Your task to perform on an android device: Open Wikipedia Image 0: 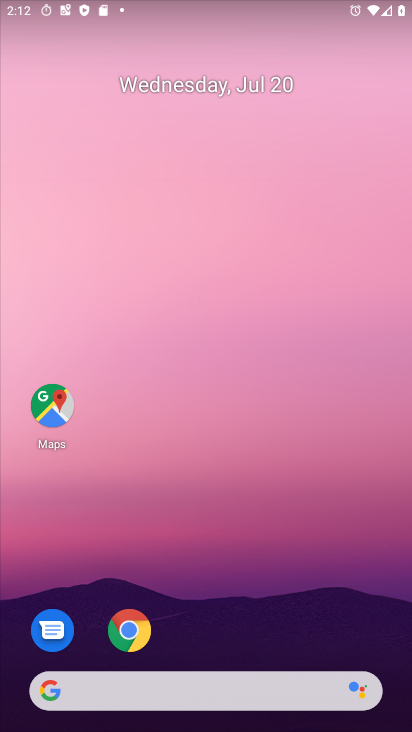
Step 0: click (133, 629)
Your task to perform on an android device: Open Wikipedia Image 1: 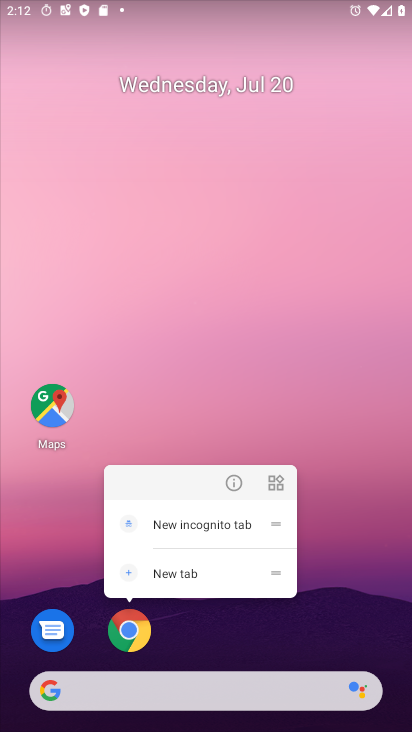
Step 1: click (133, 629)
Your task to perform on an android device: Open Wikipedia Image 2: 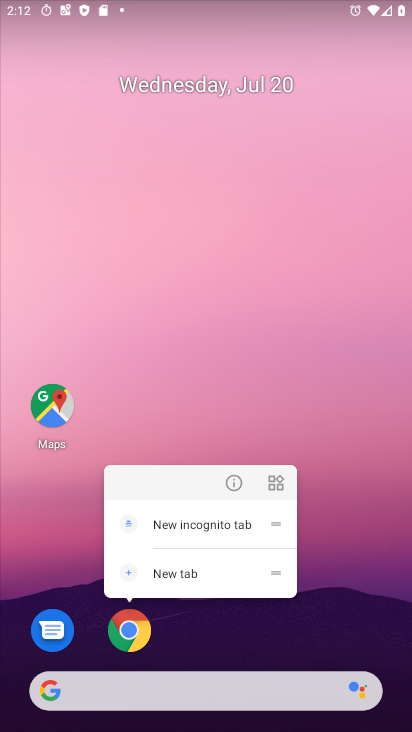
Step 2: click (125, 634)
Your task to perform on an android device: Open Wikipedia Image 3: 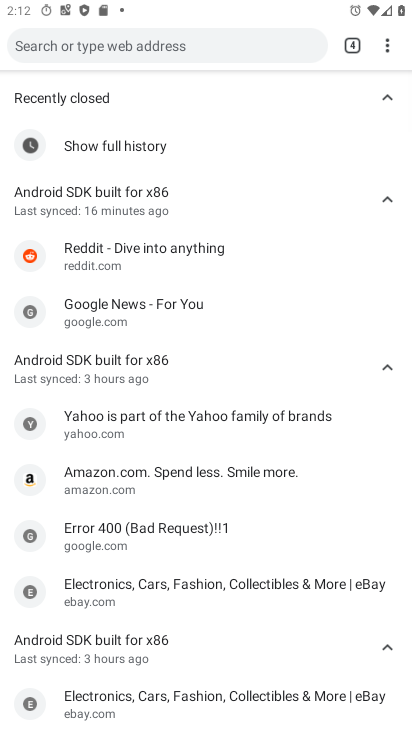
Step 3: drag from (381, 44) to (303, 85)
Your task to perform on an android device: Open Wikipedia Image 4: 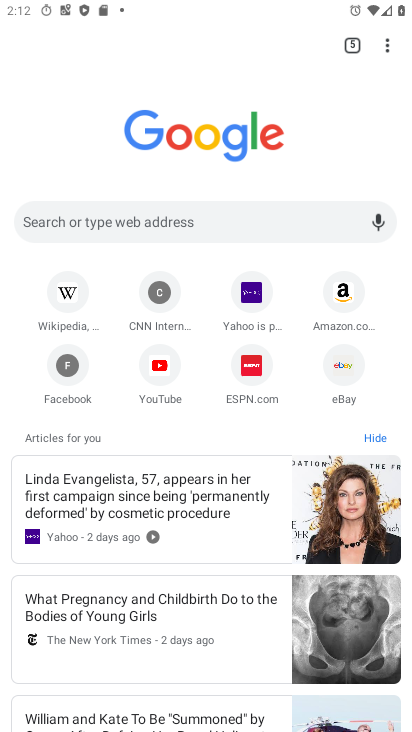
Step 4: click (63, 295)
Your task to perform on an android device: Open Wikipedia Image 5: 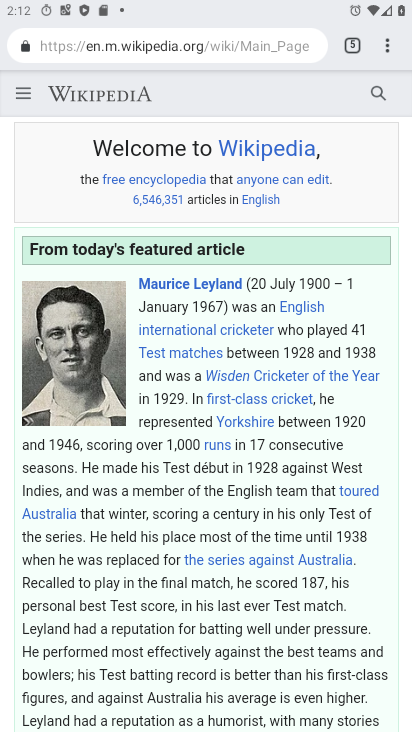
Step 5: task complete